Your task to perform on an android device: Open Youtube and go to "Your channel" Image 0: 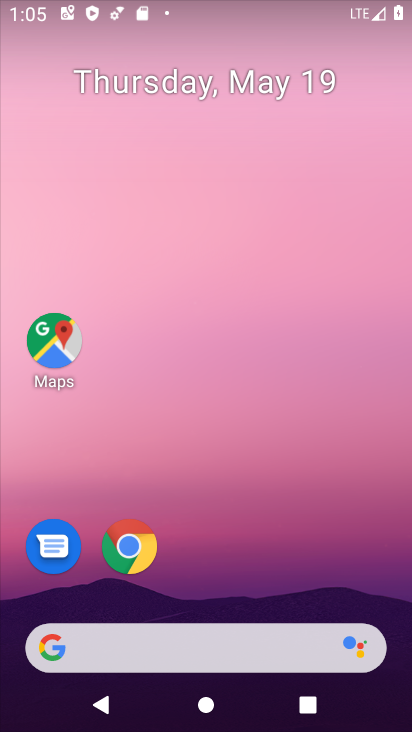
Step 0: drag from (208, 608) to (389, 224)
Your task to perform on an android device: Open Youtube and go to "Your channel" Image 1: 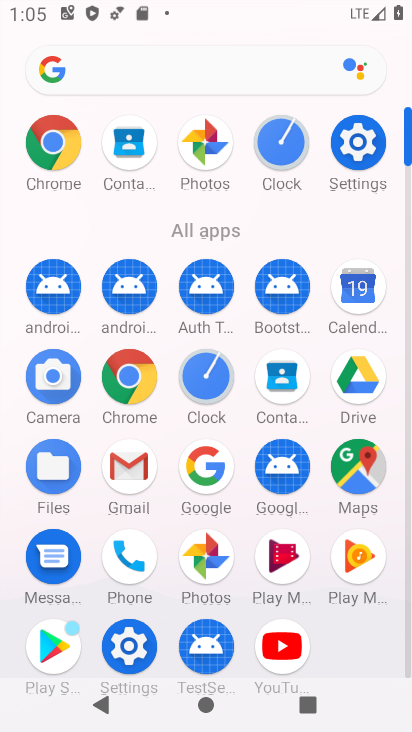
Step 1: click (274, 634)
Your task to perform on an android device: Open Youtube and go to "Your channel" Image 2: 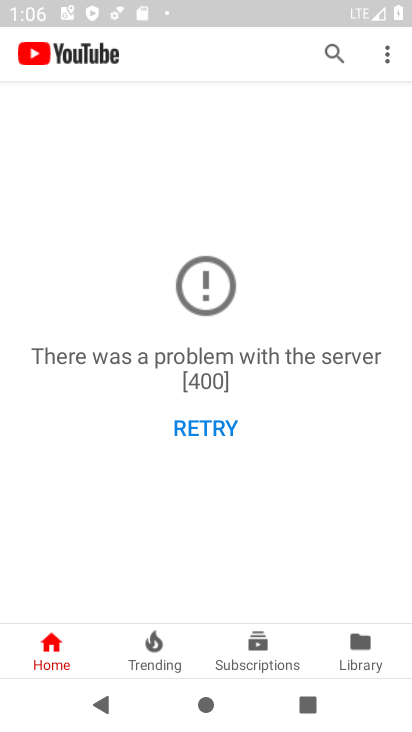
Step 2: click (355, 51)
Your task to perform on an android device: Open Youtube and go to "Your channel" Image 3: 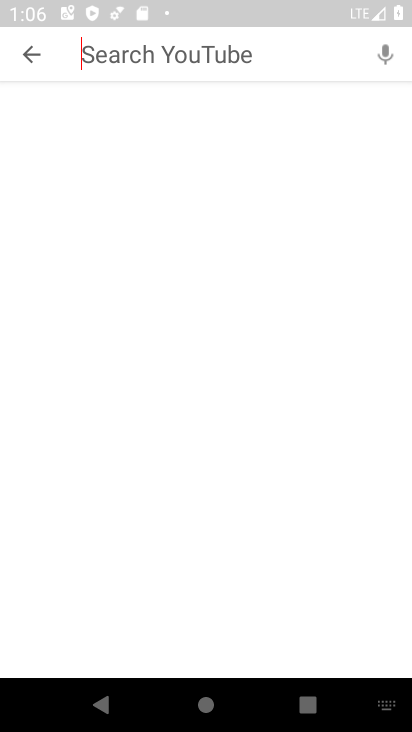
Step 3: type "your channel"
Your task to perform on an android device: Open Youtube and go to "Your channel" Image 4: 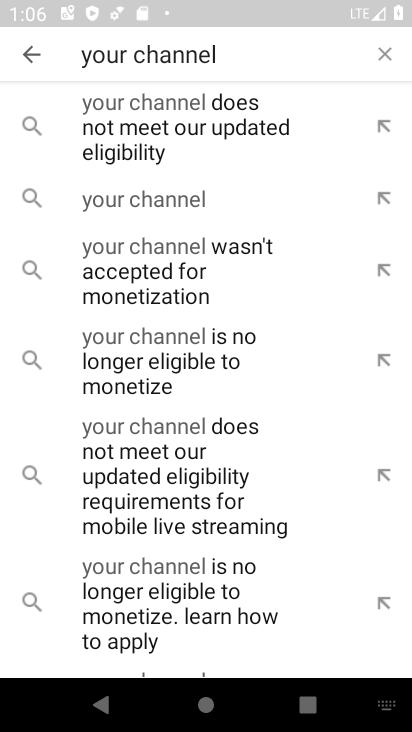
Step 4: click (177, 206)
Your task to perform on an android device: Open Youtube and go to "Your channel" Image 5: 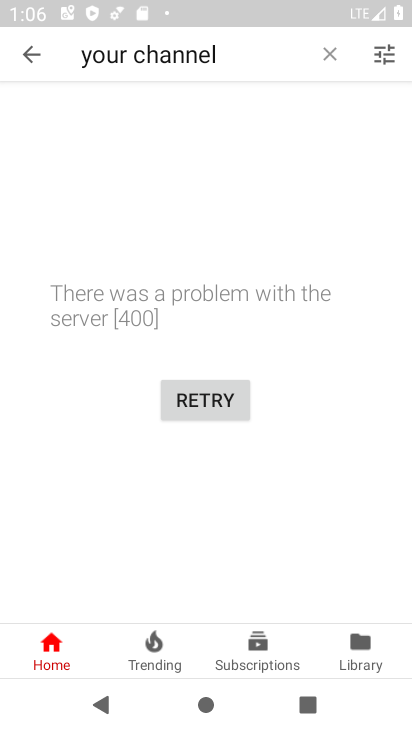
Step 5: task complete